Your task to perform on an android device: change alarm snooze length Image 0: 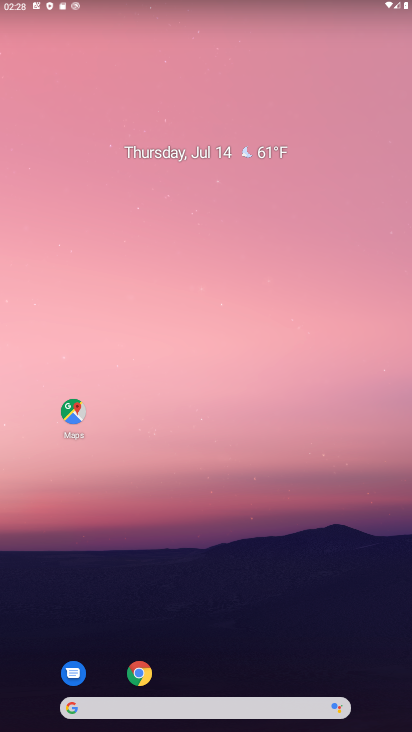
Step 0: drag from (303, 648) to (260, 242)
Your task to perform on an android device: change alarm snooze length Image 1: 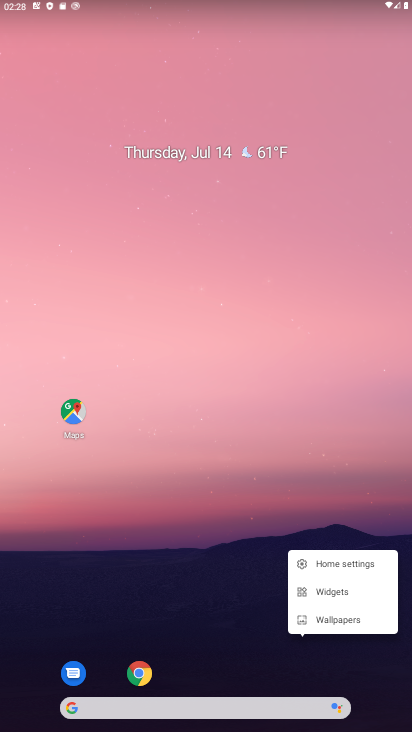
Step 1: click (216, 373)
Your task to perform on an android device: change alarm snooze length Image 2: 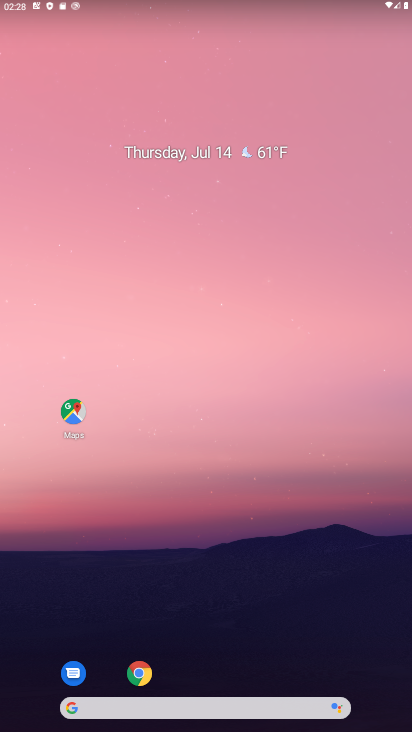
Step 2: drag from (210, 602) to (214, 200)
Your task to perform on an android device: change alarm snooze length Image 3: 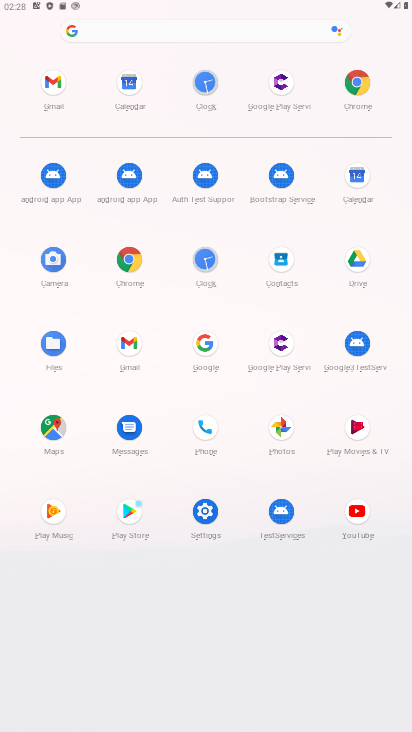
Step 3: click (195, 100)
Your task to perform on an android device: change alarm snooze length Image 4: 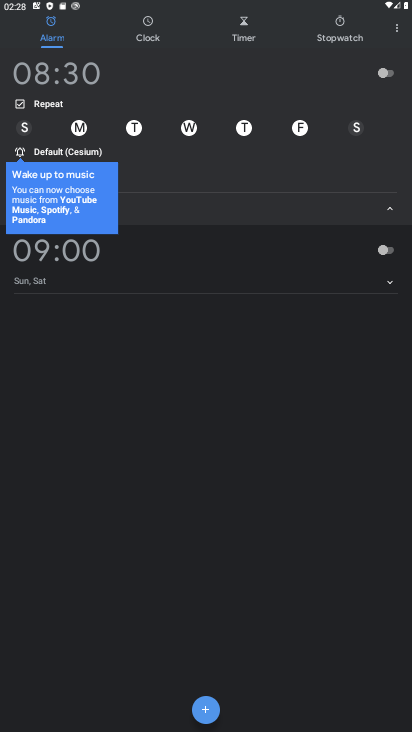
Step 4: click (394, 25)
Your task to perform on an android device: change alarm snooze length Image 5: 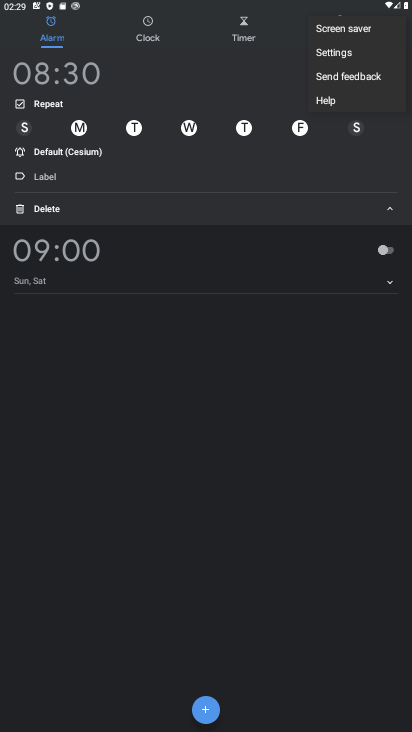
Step 5: click (354, 50)
Your task to perform on an android device: change alarm snooze length Image 6: 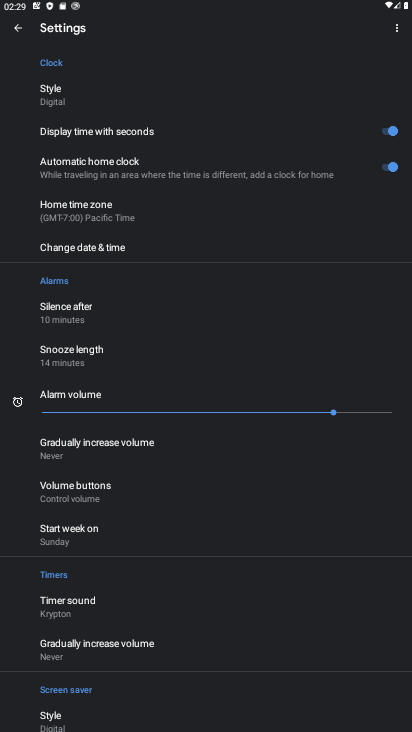
Step 6: click (143, 358)
Your task to perform on an android device: change alarm snooze length Image 7: 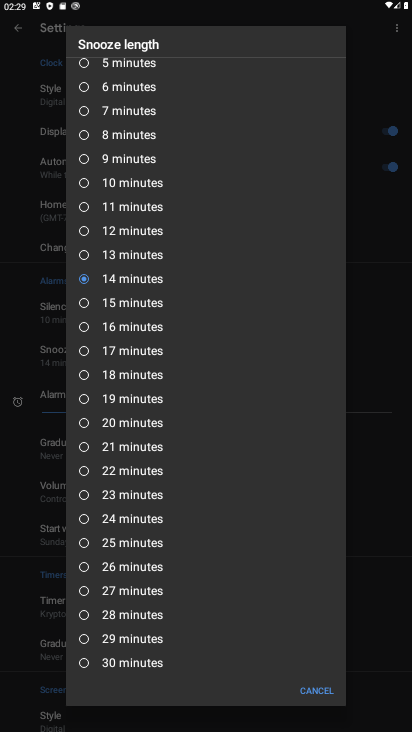
Step 7: click (94, 395)
Your task to perform on an android device: change alarm snooze length Image 8: 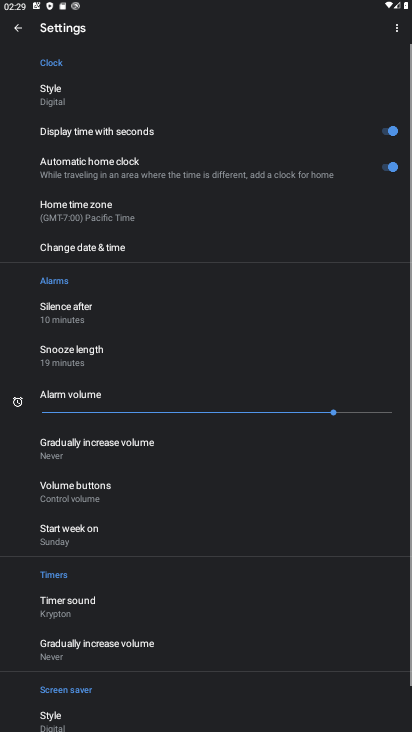
Step 8: task complete